Your task to perform on an android device: check google app version Image 0: 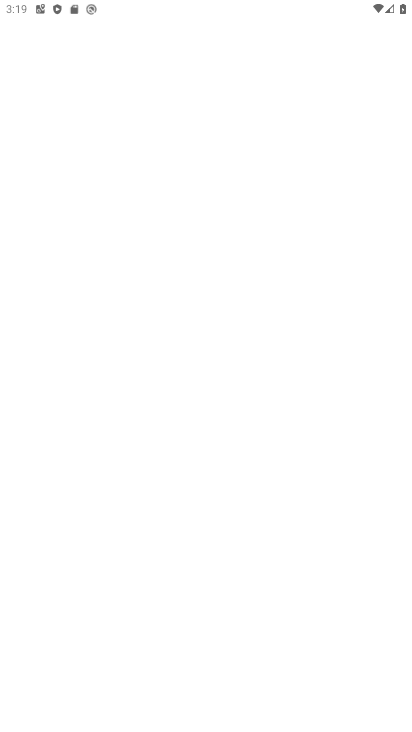
Step 0: click (127, 637)
Your task to perform on an android device: check google app version Image 1: 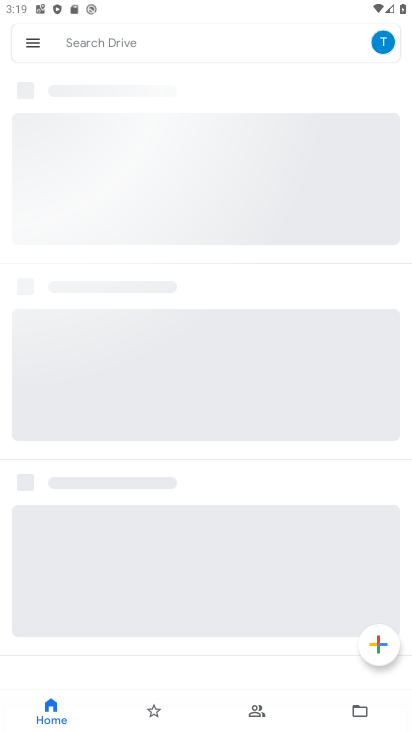
Step 1: press home button
Your task to perform on an android device: check google app version Image 2: 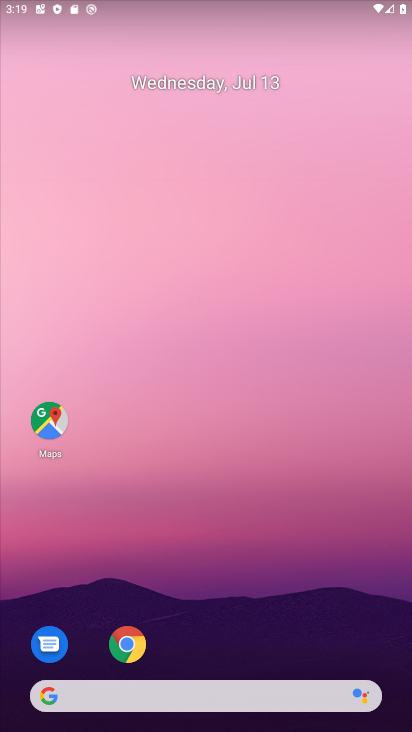
Step 2: drag from (159, 690) to (248, 151)
Your task to perform on an android device: check google app version Image 3: 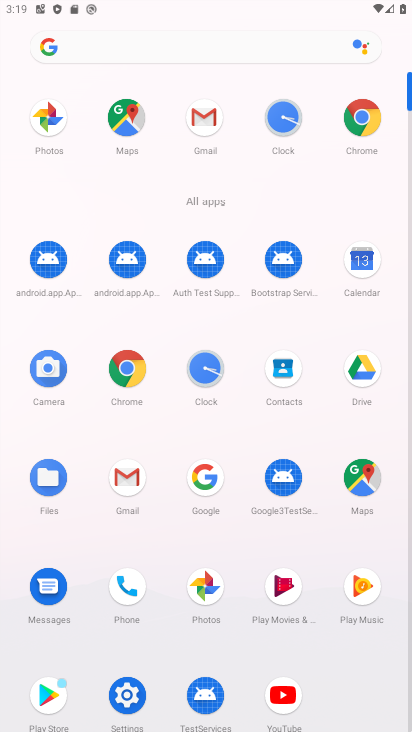
Step 3: click (131, 685)
Your task to perform on an android device: check google app version Image 4: 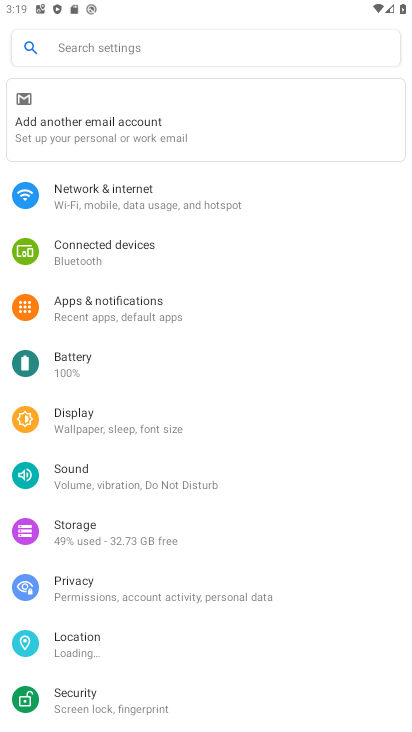
Step 4: click (108, 310)
Your task to perform on an android device: check google app version Image 5: 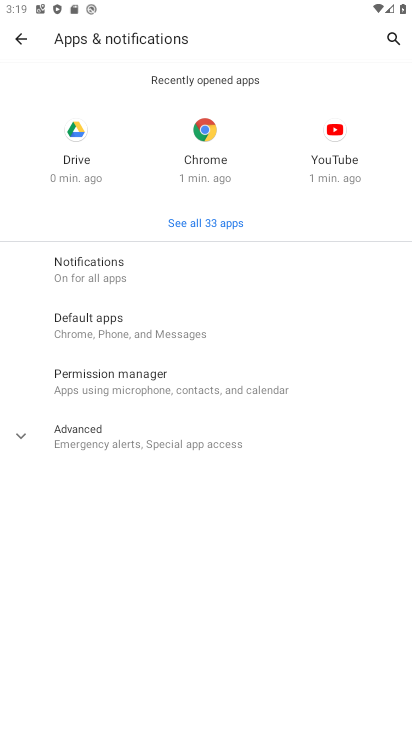
Step 5: click (200, 226)
Your task to perform on an android device: check google app version Image 6: 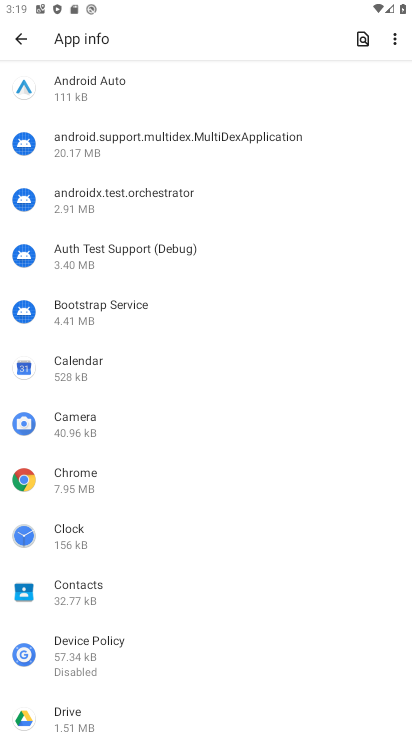
Step 6: drag from (191, 708) to (303, 274)
Your task to perform on an android device: check google app version Image 7: 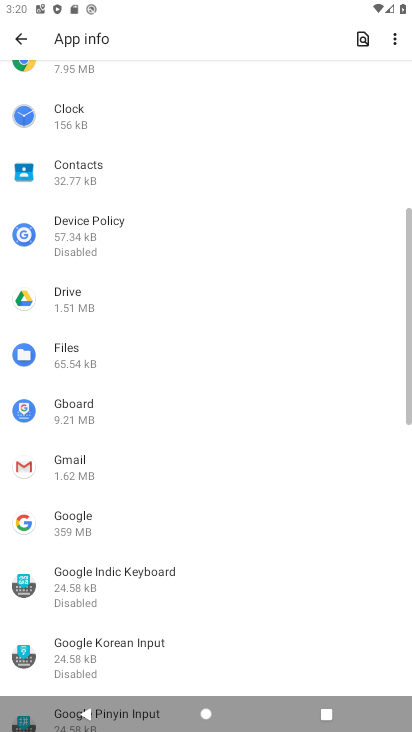
Step 7: click (102, 532)
Your task to perform on an android device: check google app version Image 8: 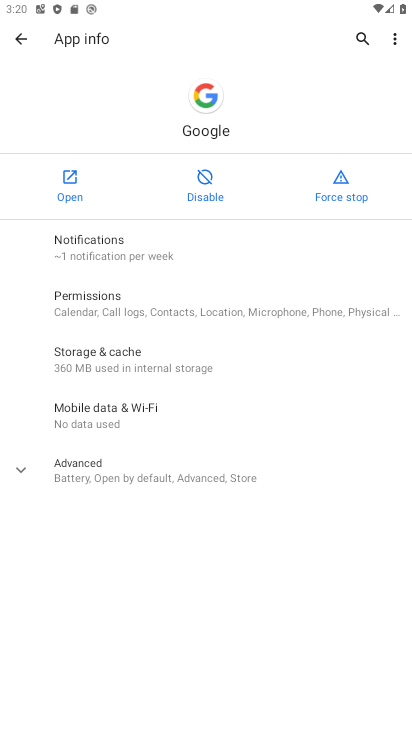
Step 8: click (178, 483)
Your task to perform on an android device: check google app version Image 9: 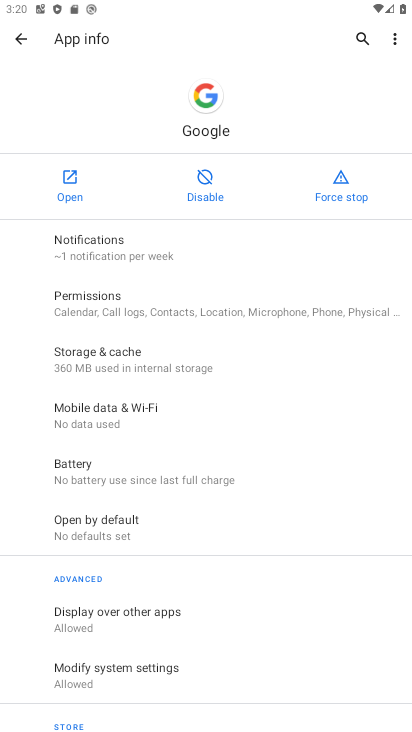
Step 9: task complete